Your task to perform on an android device: check battery use Image 0: 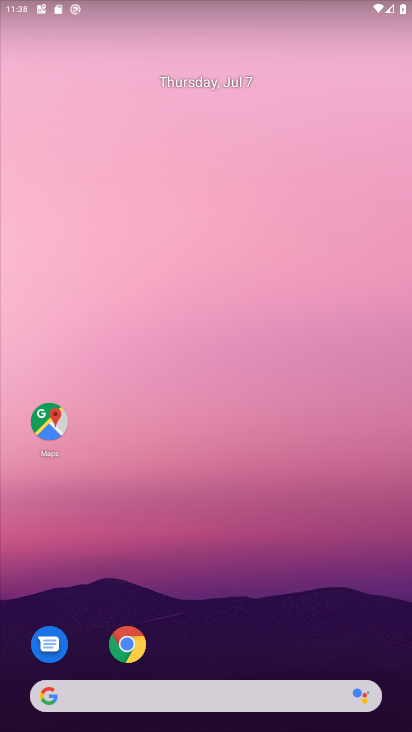
Step 0: drag from (30, 686) to (138, 150)
Your task to perform on an android device: check battery use Image 1: 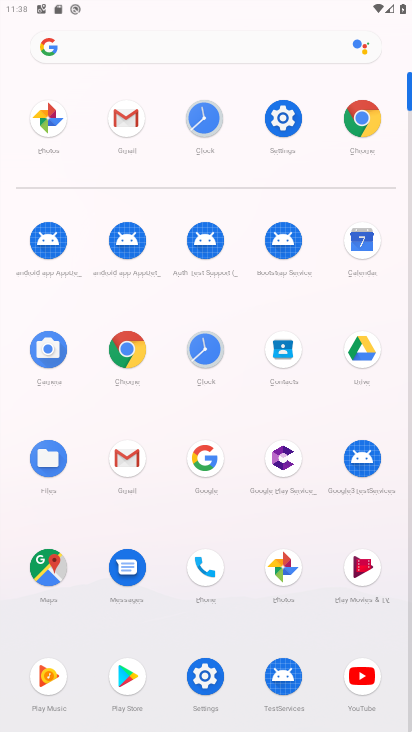
Step 1: click (217, 671)
Your task to perform on an android device: check battery use Image 2: 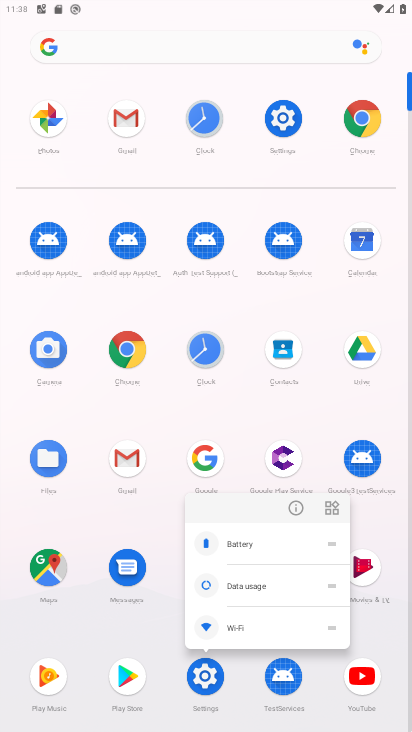
Step 2: click (201, 675)
Your task to perform on an android device: check battery use Image 3: 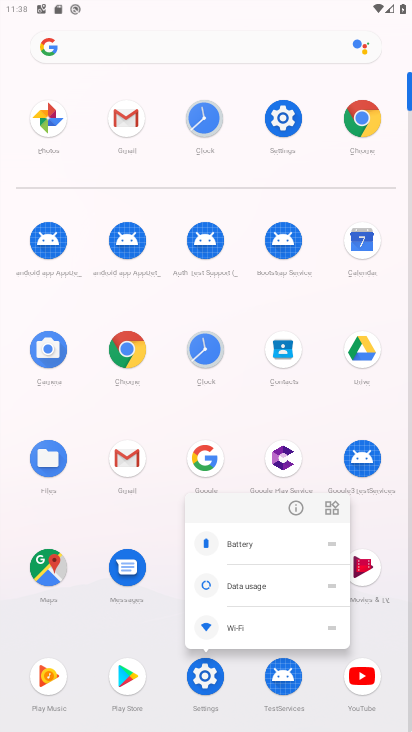
Step 3: click (206, 673)
Your task to perform on an android device: check battery use Image 4: 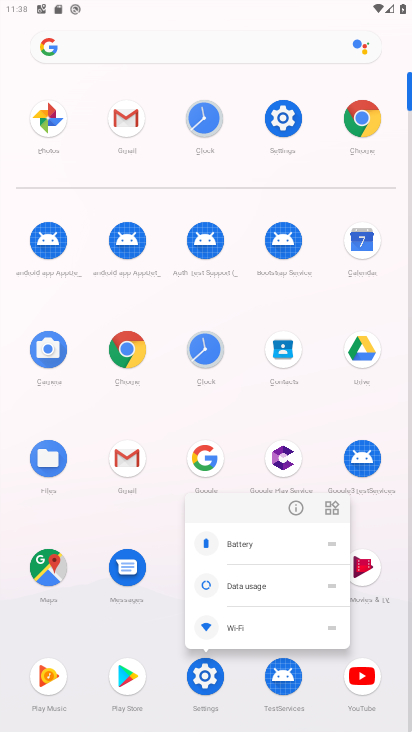
Step 4: click (213, 691)
Your task to perform on an android device: check battery use Image 5: 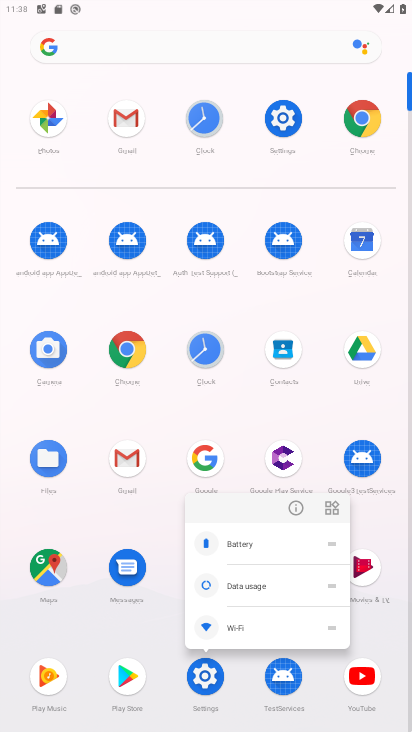
Step 5: click (197, 673)
Your task to perform on an android device: check battery use Image 6: 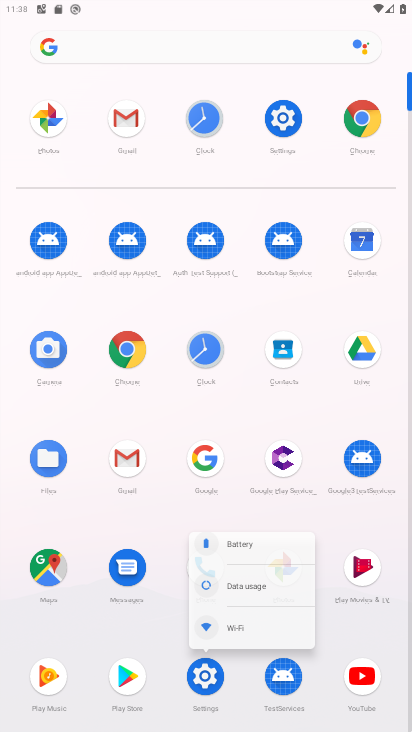
Step 6: click (197, 673)
Your task to perform on an android device: check battery use Image 7: 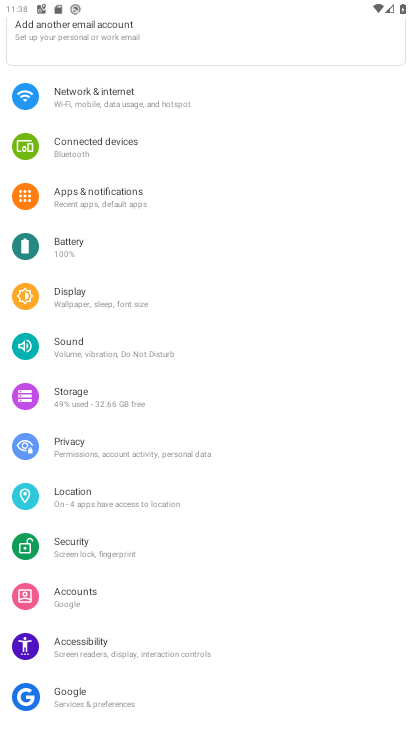
Step 7: click (54, 234)
Your task to perform on an android device: check battery use Image 8: 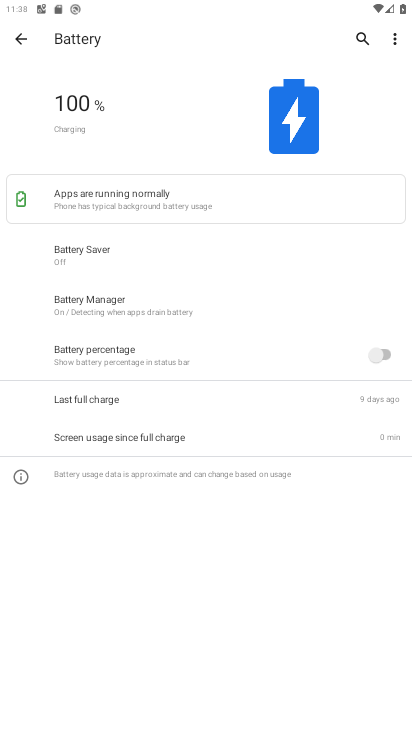
Step 8: task complete